Your task to perform on an android device: star an email in the gmail app Image 0: 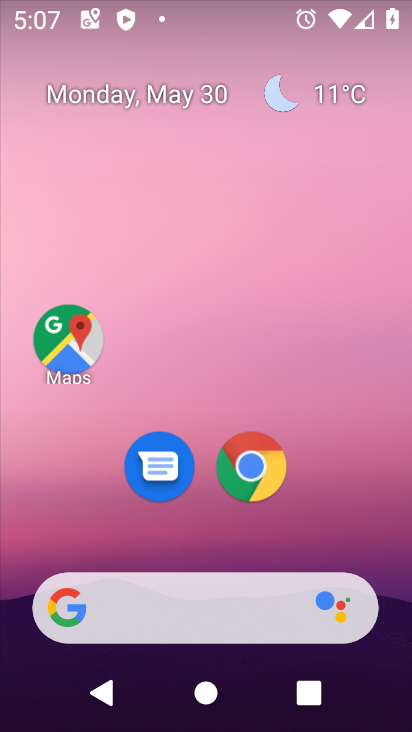
Step 0: drag from (360, 499) to (333, 156)
Your task to perform on an android device: star an email in the gmail app Image 1: 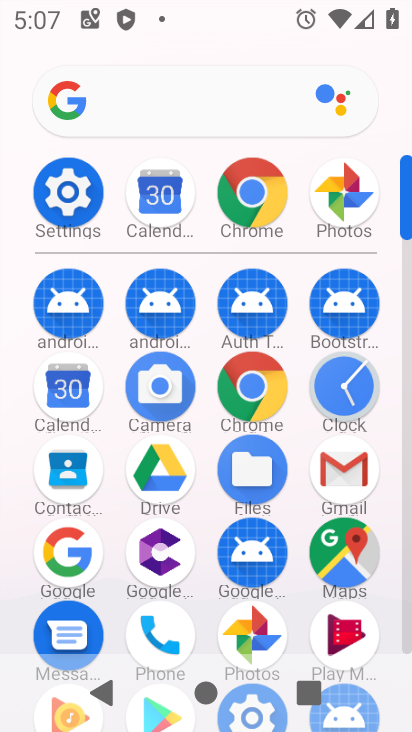
Step 1: click (330, 461)
Your task to perform on an android device: star an email in the gmail app Image 2: 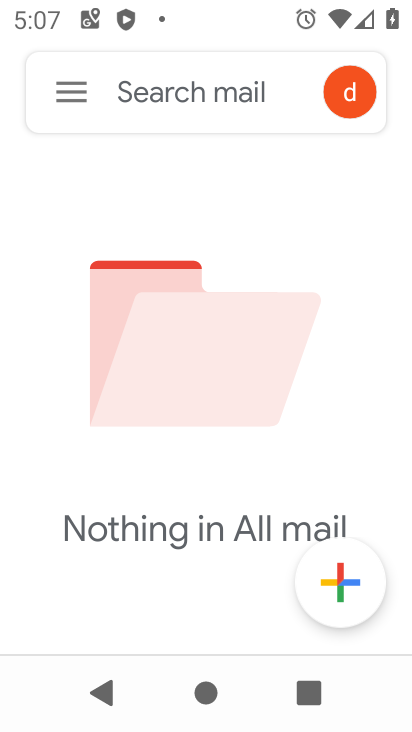
Step 2: click (56, 84)
Your task to perform on an android device: star an email in the gmail app Image 3: 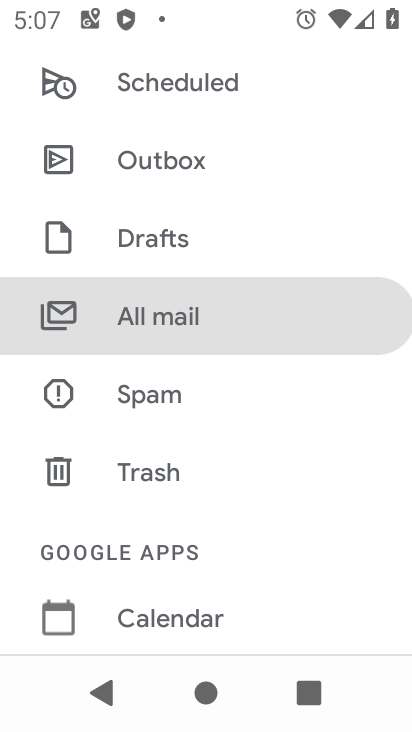
Step 3: drag from (201, 136) to (278, 570)
Your task to perform on an android device: star an email in the gmail app Image 4: 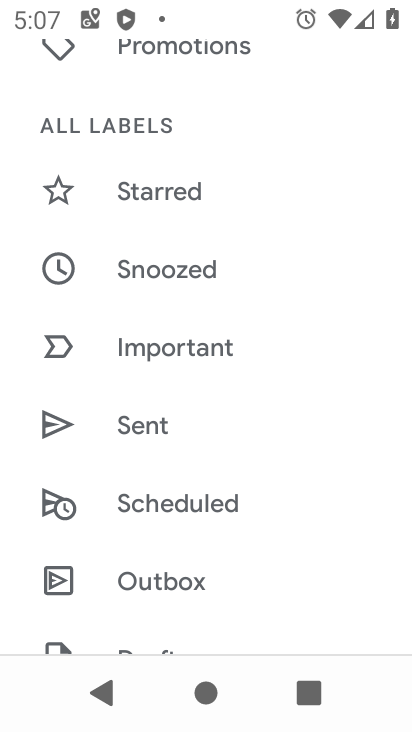
Step 4: drag from (264, 416) to (282, 42)
Your task to perform on an android device: star an email in the gmail app Image 5: 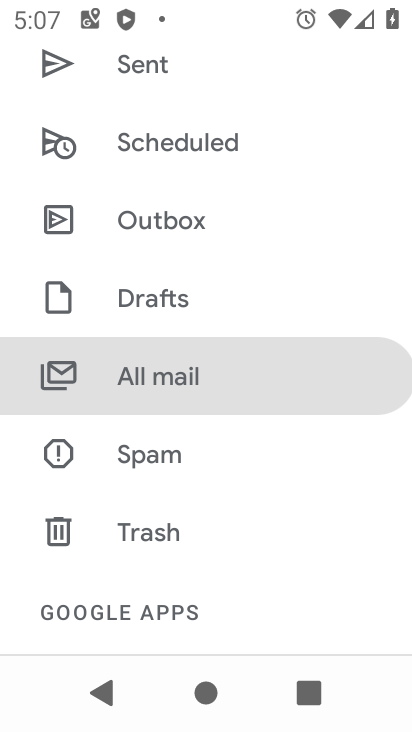
Step 5: click (211, 377)
Your task to perform on an android device: star an email in the gmail app Image 6: 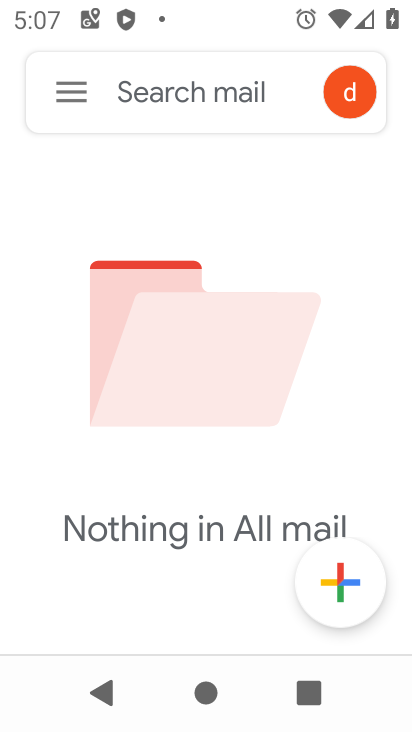
Step 6: task complete